Your task to perform on an android device: turn on improve location accuracy Image 0: 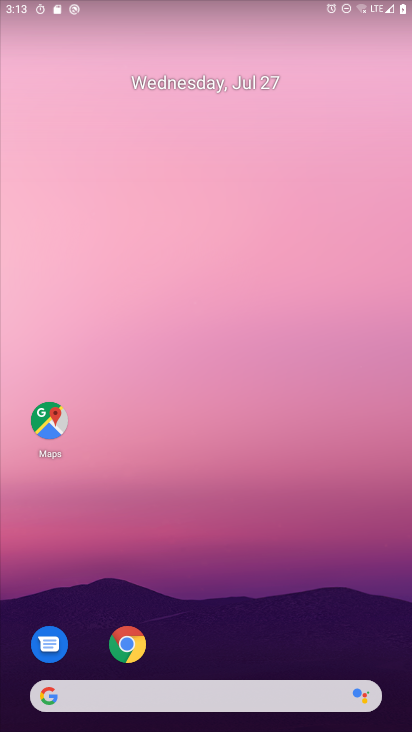
Step 0: drag from (222, 496) to (261, 29)
Your task to perform on an android device: turn on improve location accuracy Image 1: 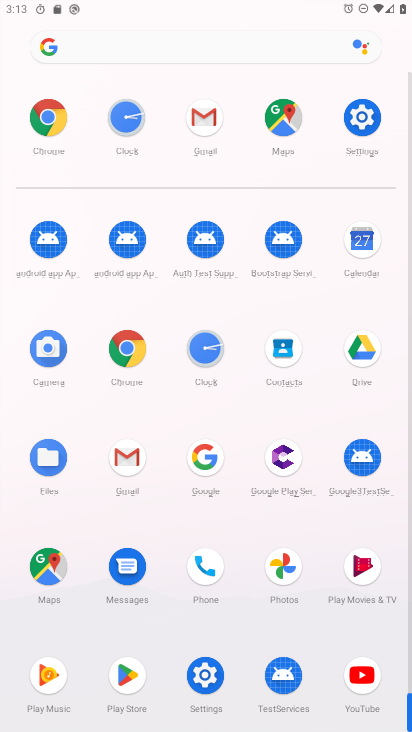
Step 1: click (200, 671)
Your task to perform on an android device: turn on improve location accuracy Image 2: 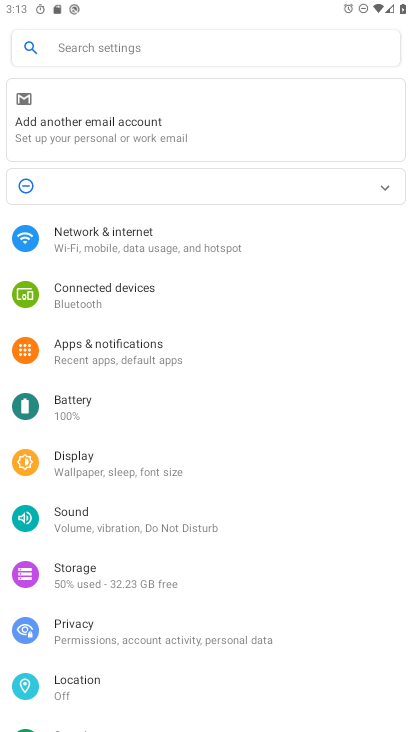
Step 2: drag from (106, 630) to (138, 271)
Your task to perform on an android device: turn on improve location accuracy Image 3: 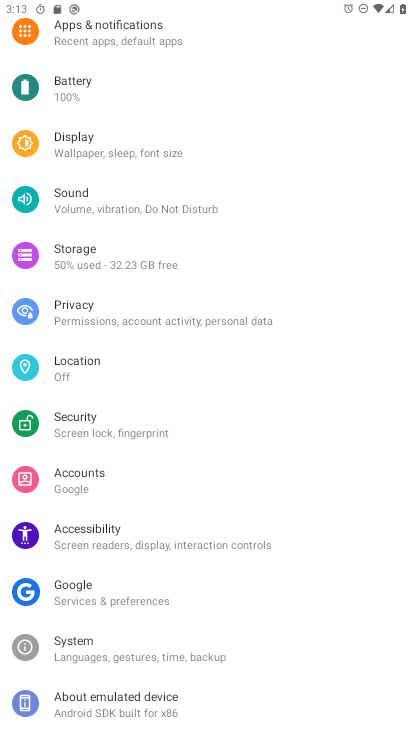
Step 3: click (112, 365)
Your task to perform on an android device: turn on improve location accuracy Image 4: 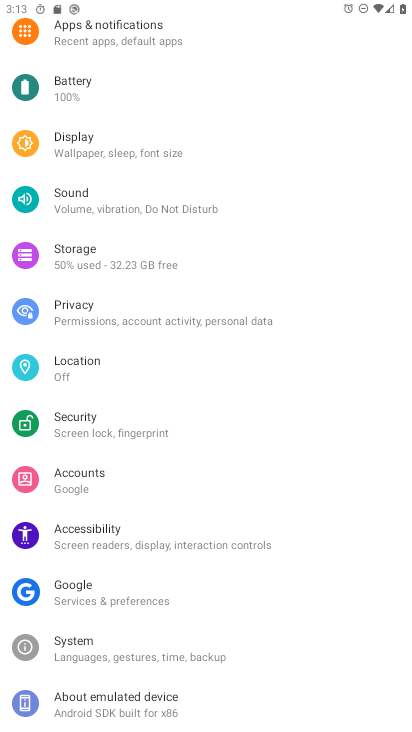
Step 4: click (112, 365)
Your task to perform on an android device: turn on improve location accuracy Image 5: 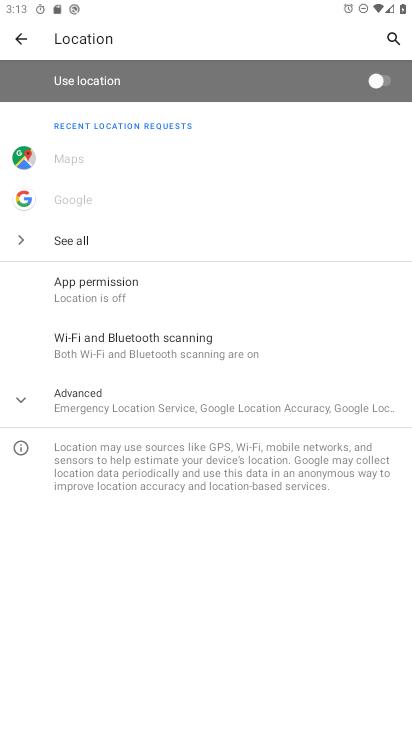
Step 5: drag from (169, 626) to (167, 467)
Your task to perform on an android device: turn on improve location accuracy Image 6: 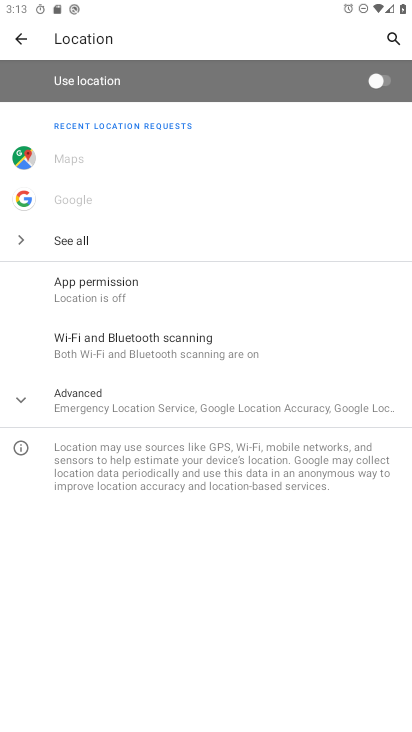
Step 6: click (103, 387)
Your task to perform on an android device: turn on improve location accuracy Image 7: 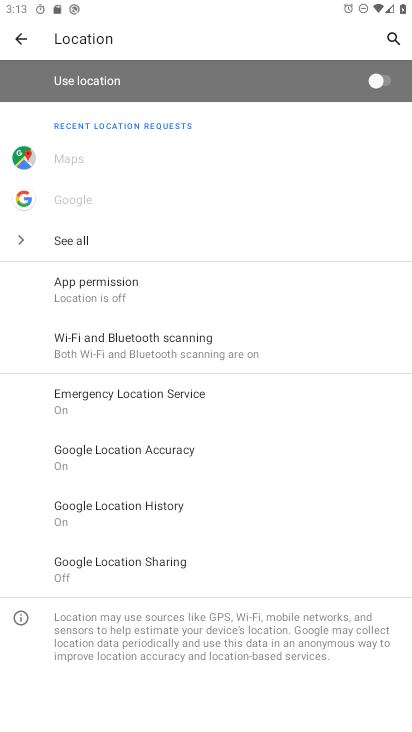
Step 7: click (283, 447)
Your task to perform on an android device: turn on improve location accuracy Image 8: 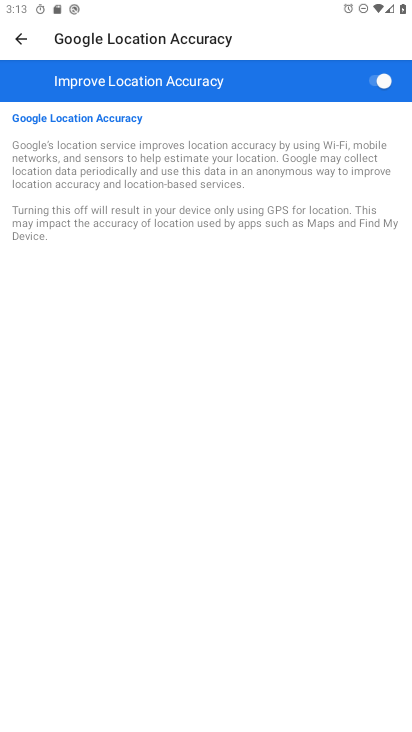
Step 8: task complete